Your task to perform on an android device: Go to ESPN.com Image 0: 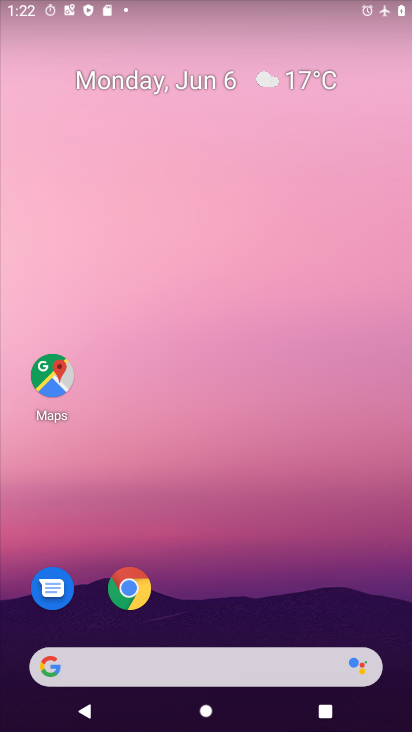
Step 0: click (132, 594)
Your task to perform on an android device: Go to ESPN.com Image 1: 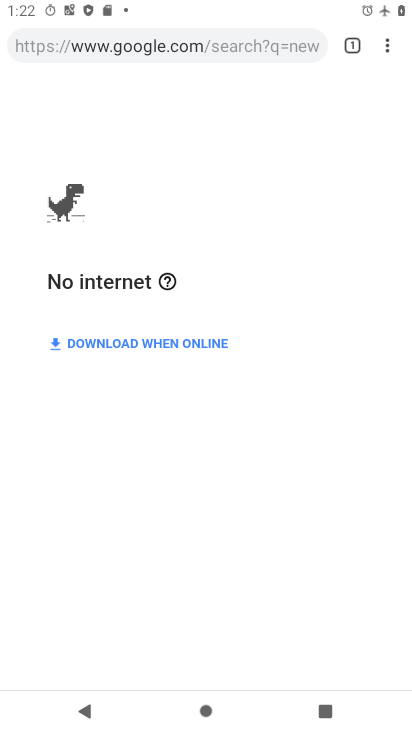
Step 1: click (211, 51)
Your task to perform on an android device: Go to ESPN.com Image 2: 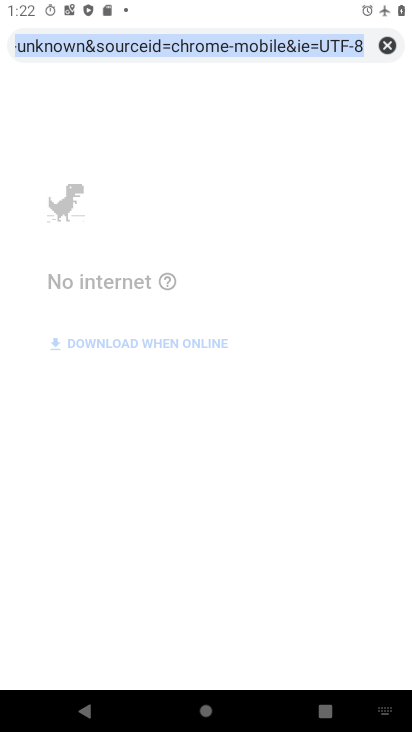
Step 2: type "espn.com"
Your task to perform on an android device: Go to ESPN.com Image 3: 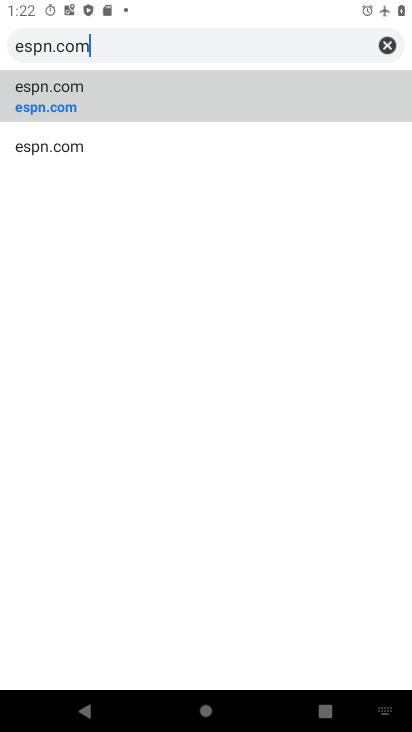
Step 3: click (44, 104)
Your task to perform on an android device: Go to ESPN.com Image 4: 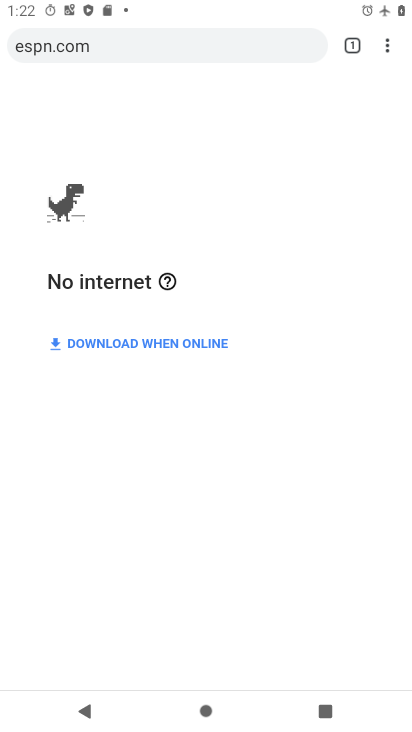
Step 4: task complete